Your task to perform on an android device: delete the emails in spam in the gmail app Image 0: 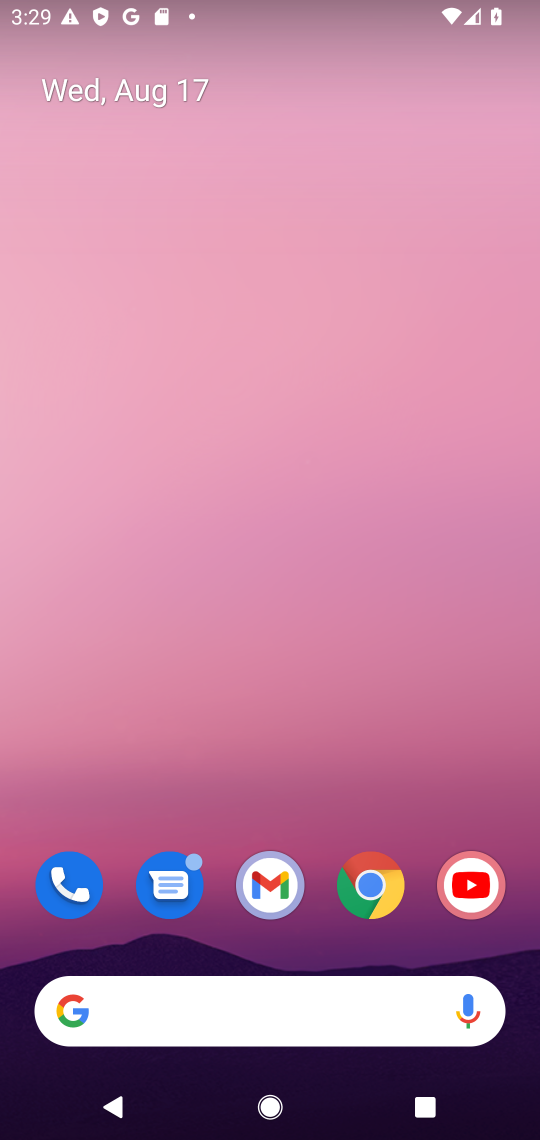
Step 0: drag from (223, 1017) to (304, 160)
Your task to perform on an android device: delete the emails in spam in the gmail app Image 1: 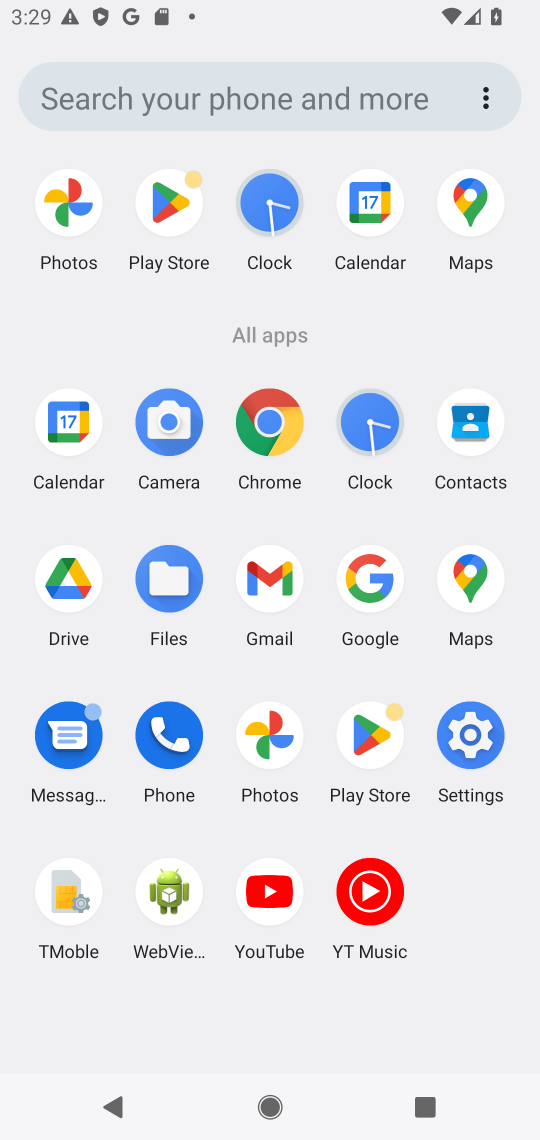
Step 1: click (270, 581)
Your task to perform on an android device: delete the emails in spam in the gmail app Image 2: 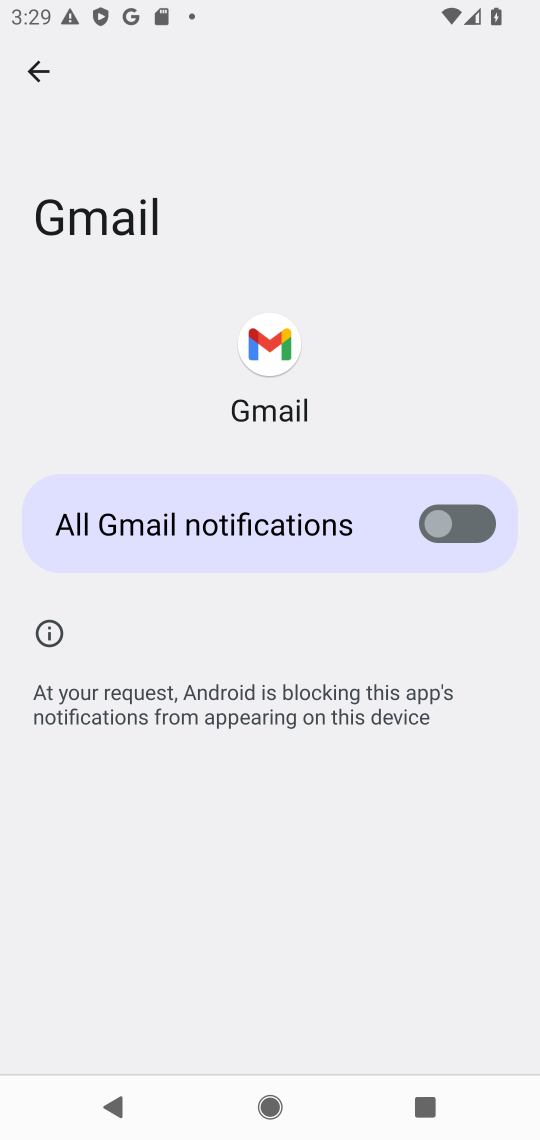
Step 2: press back button
Your task to perform on an android device: delete the emails in spam in the gmail app Image 3: 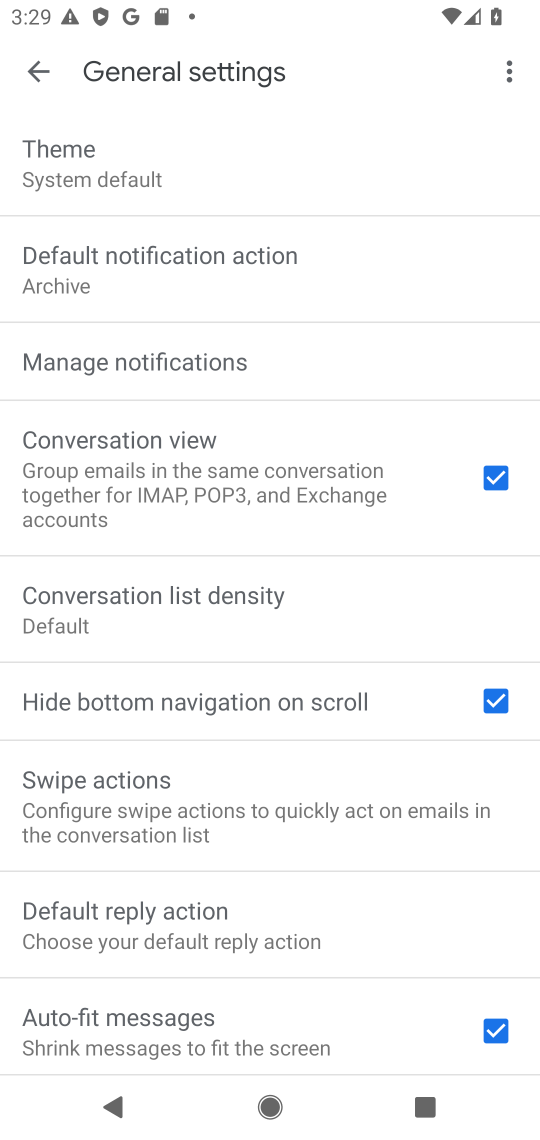
Step 3: press back button
Your task to perform on an android device: delete the emails in spam in the gmail app Image 4: 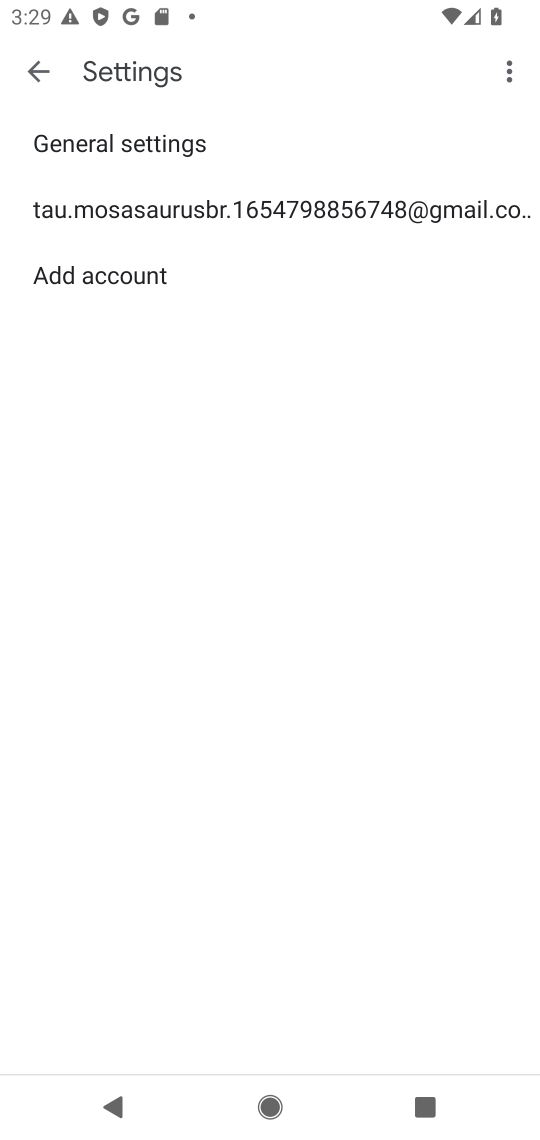
Step 4: press back button
Your task to perform on an android device: delete the emails in spam in the gmail app Image 5: 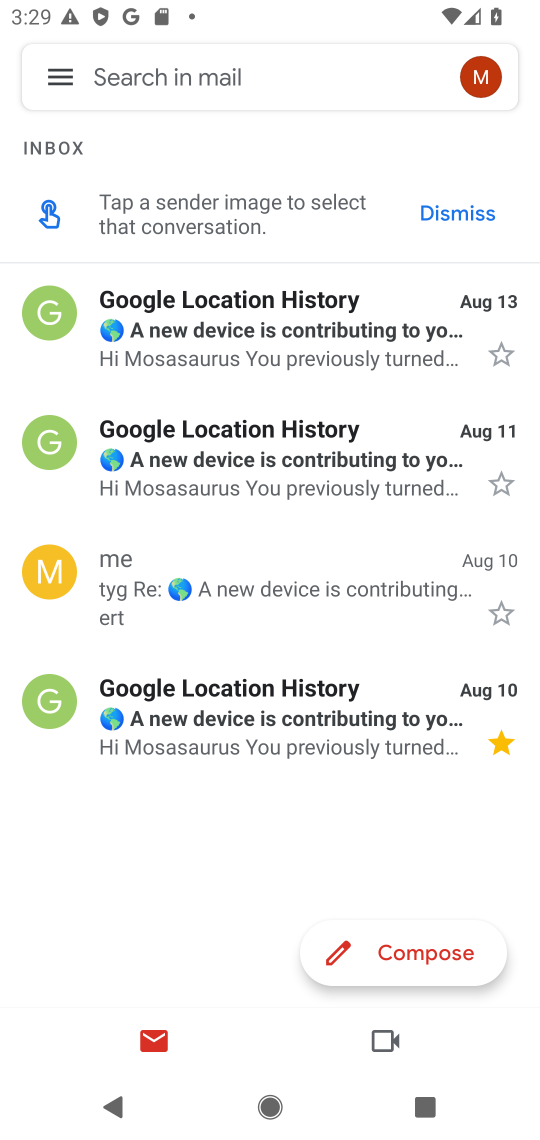
Step 5: click (60, 82)
Your task to perform on an android device: delete the emails in spam in the gmail app Image 6: 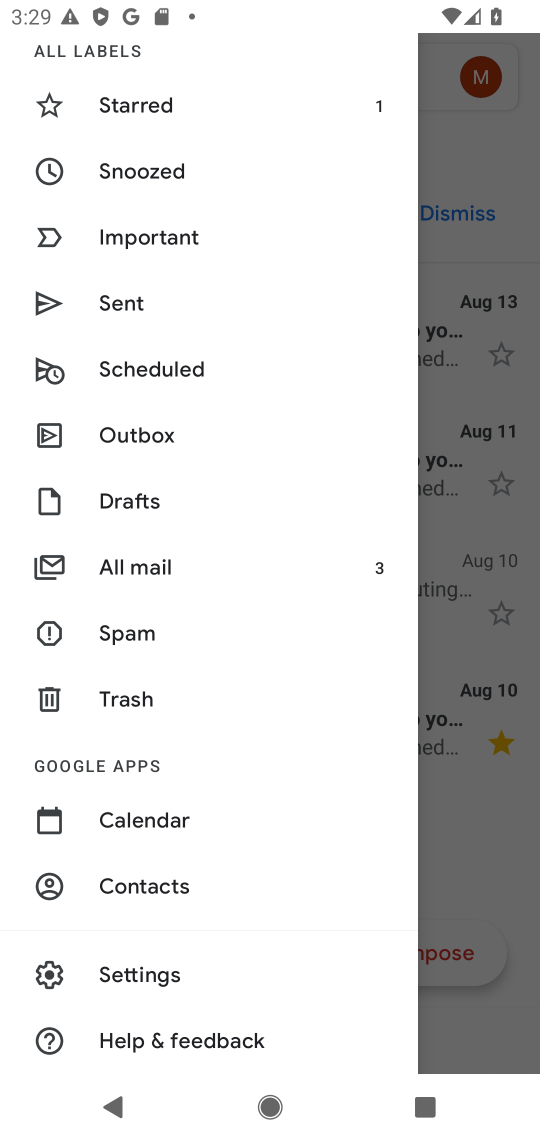
Step 6: click (137, 645)
Your task to perform on an android device: delete the emails in spam in the gmail app Image 7: 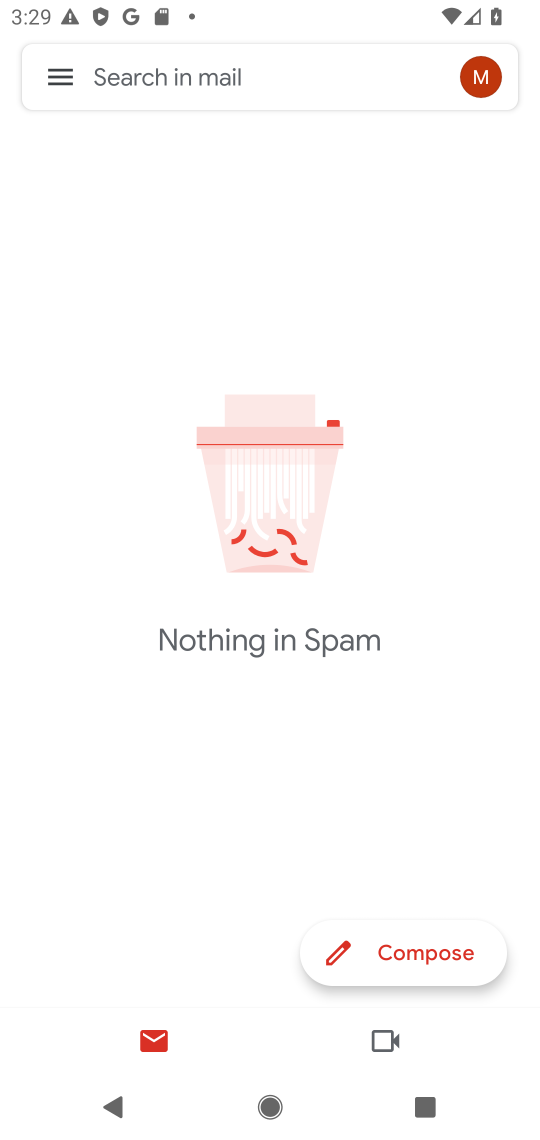
Step 7: task complete